Your task to perform on an android device: change the clock display to show seconds Image 0: 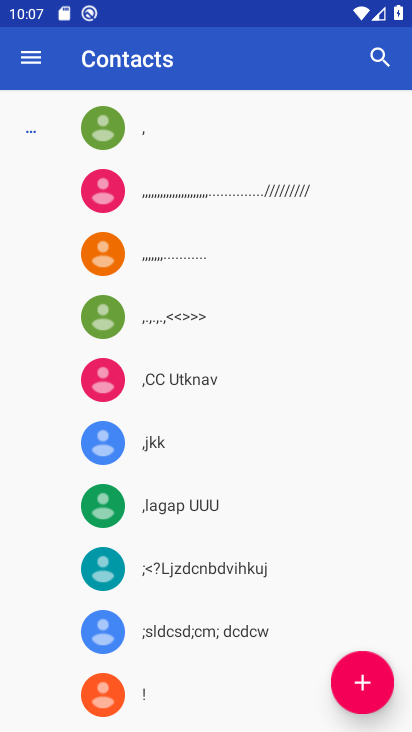
Step 0: press home button
Your task to perform on an android device: change the clock display to show seconds Image 1: 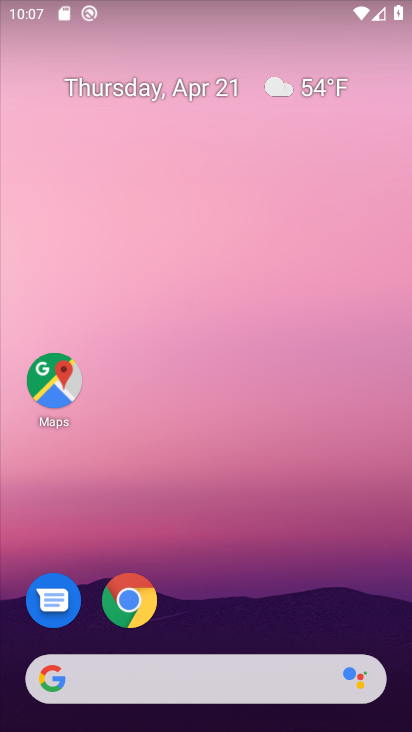
Step 1: drag from (254, 495) to (242, 51)
Your task to perform on an android device: change the clock display to show seconds Image 2: 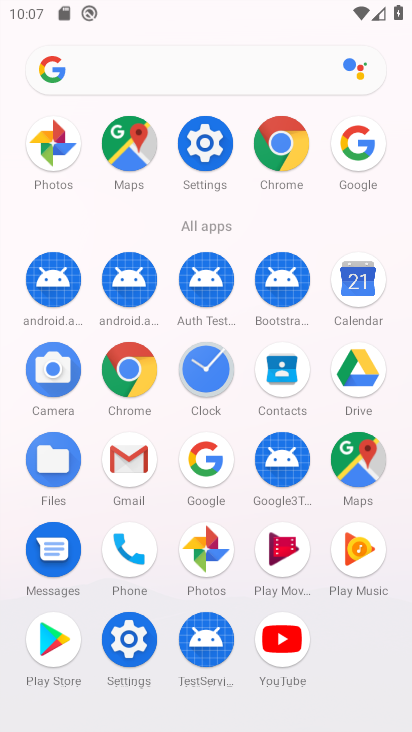
Step 2: click (200, 374)
Your task to perform on an android device: change the clock display to show seconds Image 3: 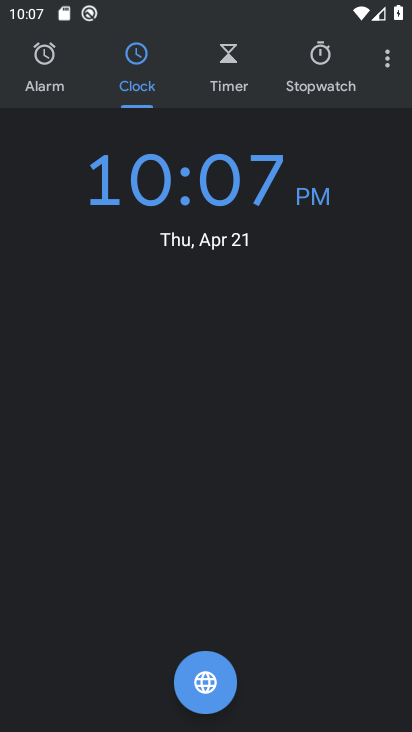
Step 3: click (380, 59)
Your task to perform on an android device: change the clock display to show seconds Image 4: 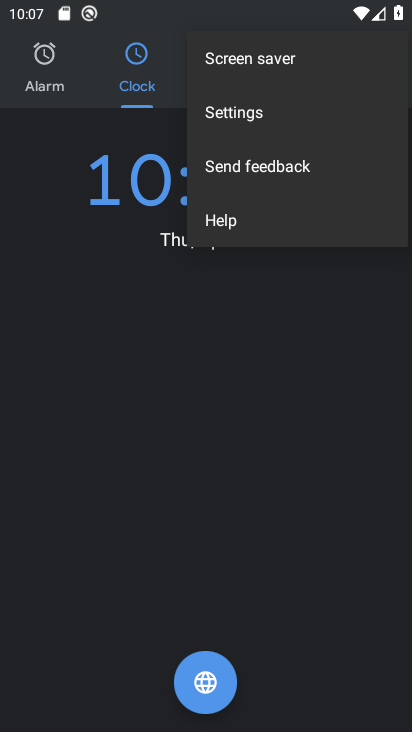
Step 4: click (294, 122)
Your task to perform on an android device: change the clock display to show seconds Image 5: 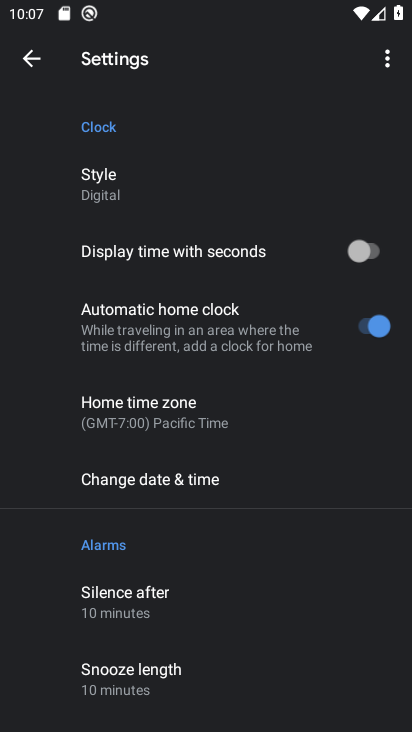
Step 5: click (354, 257)
Your task to perform on an android device: change the clock display to show seconds Image 6: 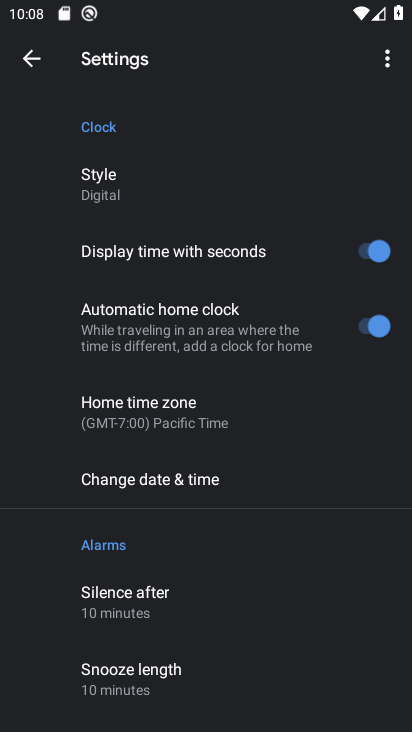
Step 6: task complete